Your task to perform on an android device: empty trash in google photos Image 0: 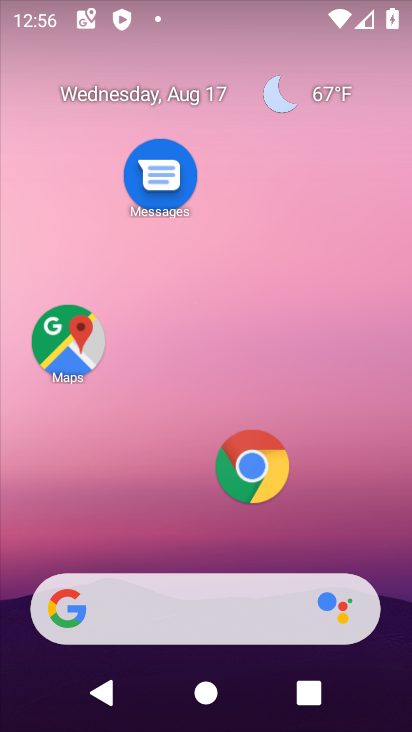
Step 0: drag from (187, 539) to (214, 117)
Your task to perform on an android device: empty trash in google photos Image 1: 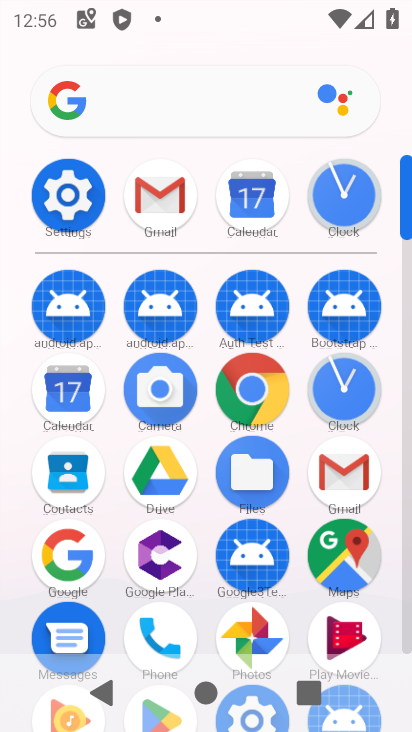
Step 1: click (72, 196)
Your task to perform on an android device: empty trash in google photos Image 2: 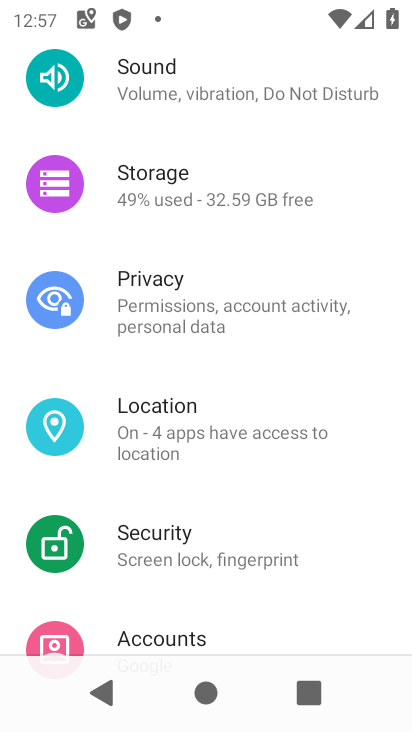
Step 2: press home button
Your task to perform on an android device: empty trash in google photos Image 3: 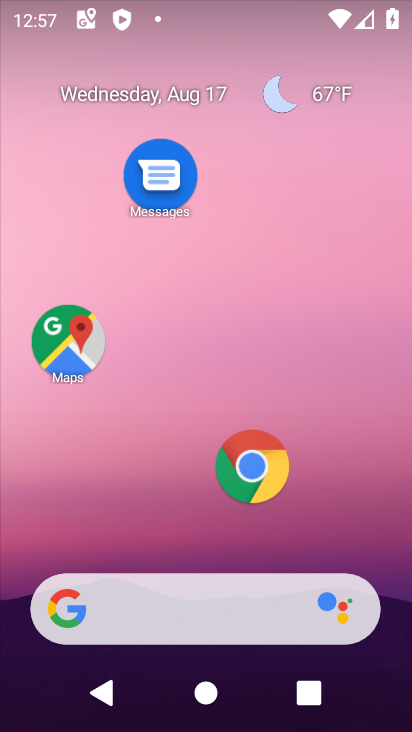
Step 3: click (187, 131)
Your task to perform on an android device: empty trash in google photos Image 4: 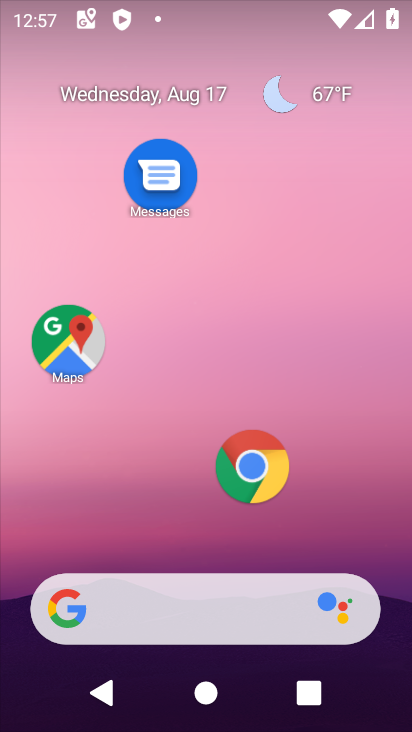
Step 4: drag from (167, 537) to (241, 79)
Your task to perform on an android device: empty trash in google photos Image 5: 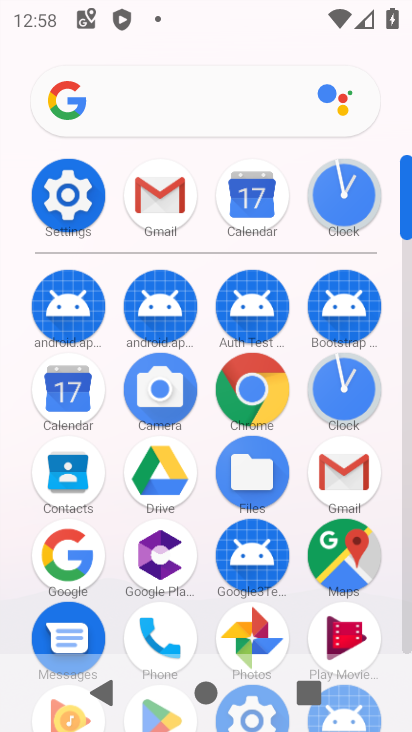
Step 5: click (253, 631)
Your task to perform on an android device: empty trash in google photos Image 6: 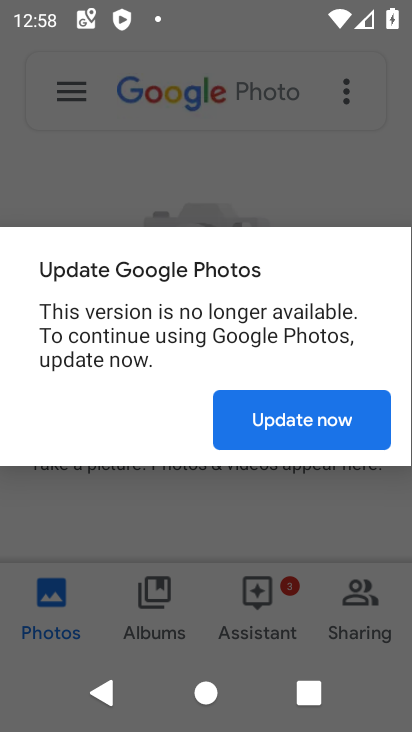
Step 6: click (260, 432)
Your task to perform on an android device: empty trash in google photos Image 7: 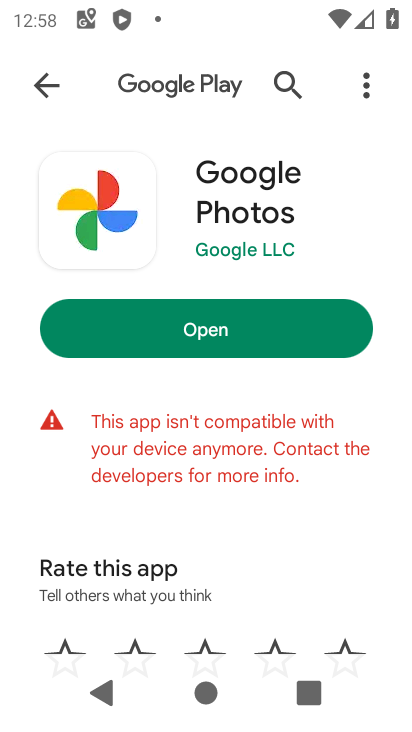
Step 7: task complete